Your task to perform on an android device: Go to settings Image 0: 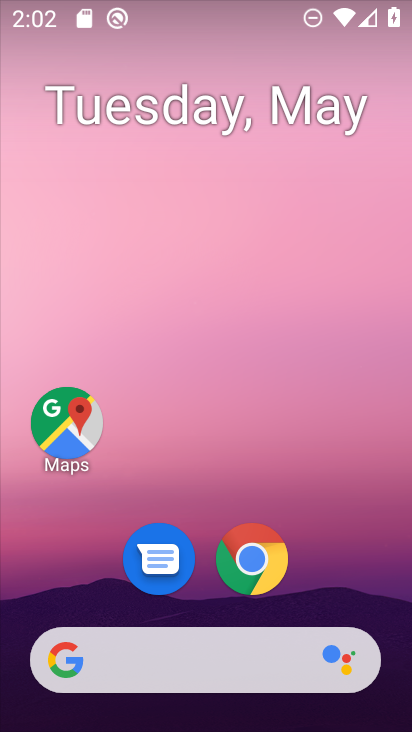
Step 0: drag from (400, 644) to (260, 7)
Your task to perform on an android device: Go to settings Image 1: 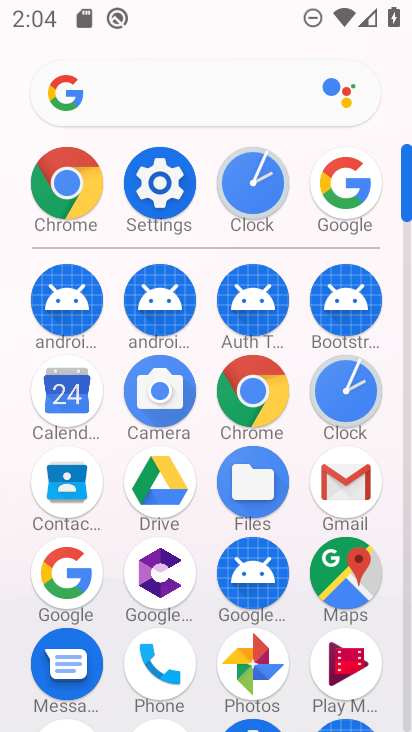
Step 1: click (162, 212)
Your task to perform on an android device: Go to settings Image 2: 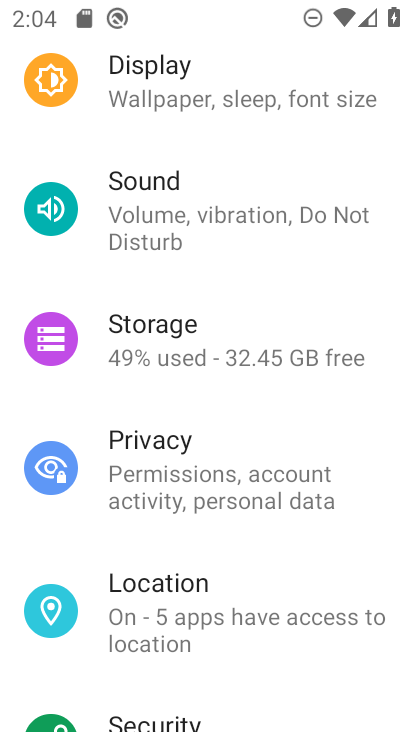
Step 2: task complete